Your task to perform on an android device: Open Google Chrome and open the bookmarks view Image 0: 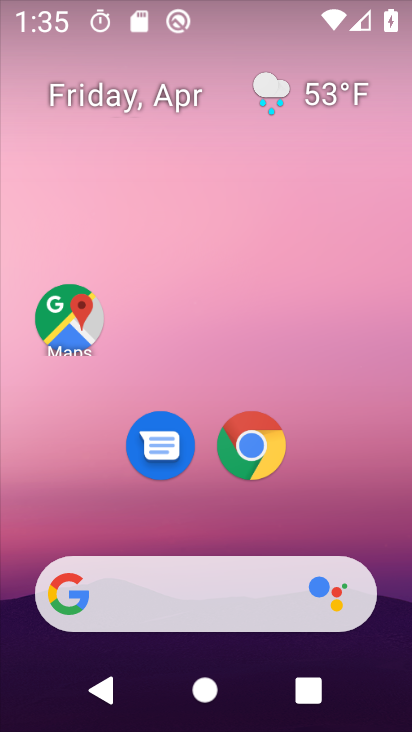
Step 0: drag from (364, 512) to (364, 203)
Your task to perform on an android device: Open Google Chrome and open the bookmarks view Image 1: 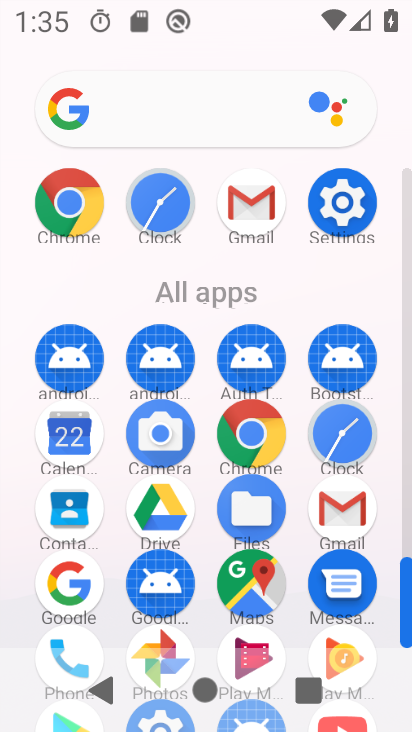
Step 1: click (253, 416)
Your task to perform on an android device: Open Google Chrome and open the bookmarks view Image 2: 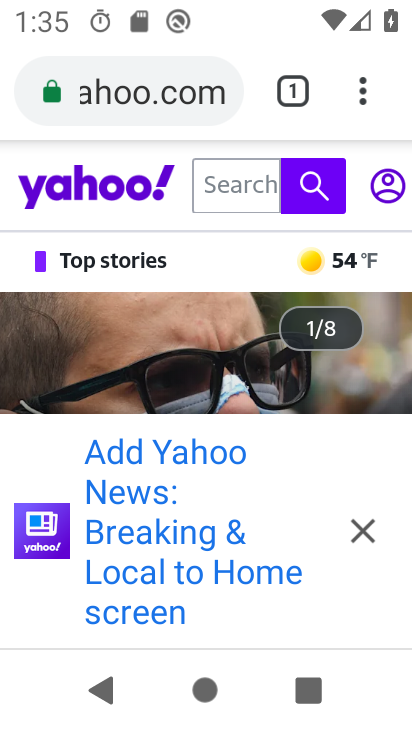
Step 2: click (364, 97)
Your task to perform on an android device: Open Google Chrome and open the bookmarks view Image 3: 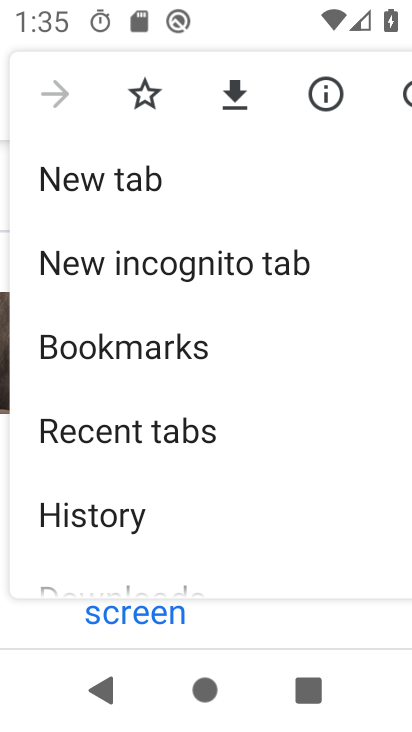
Step 3: click (198, 348)
Your task to perform on an android device: Open Google Chrome and open the bookmarks view Image 4: 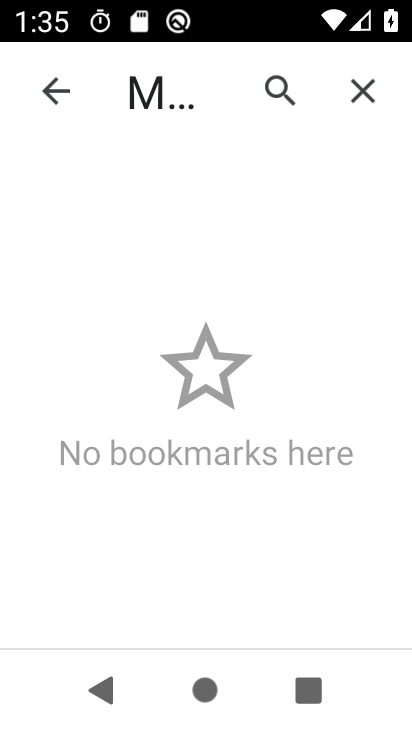
Step 4: task complete